Your task to perform on an android device: add a label to a message in the gmail app Image 0: 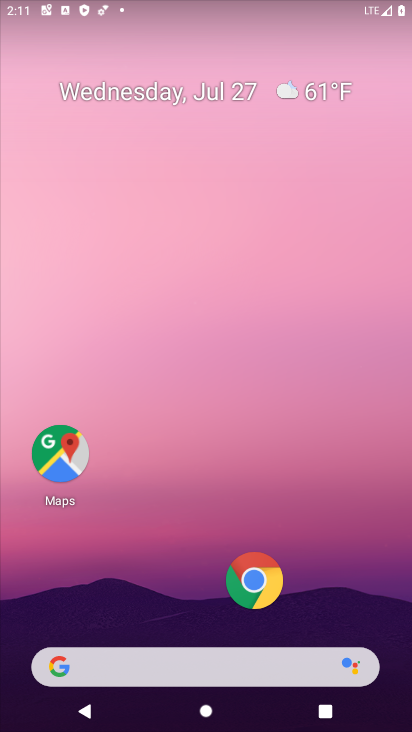
Step 0: drag from (176, 596) to (260, 79)
Your task to perform on an android device: add a label to a message in the gmail app Image 1: 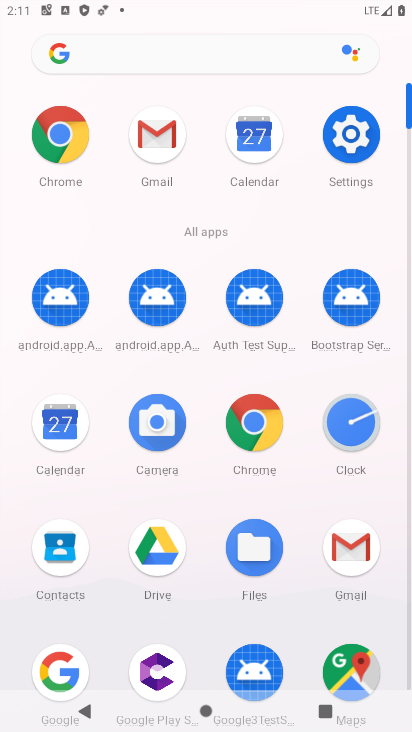
Step 1: click (162, 141)
Your task to perform on an android device: add a label to a message in the gmail app Image 2: 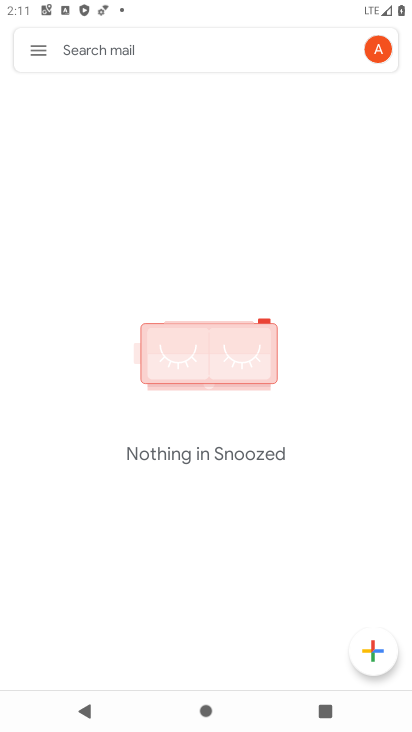
Step 2: click (27, 61)
Your task to perform on an android device: add a label to a message in the gmail app Image 3: 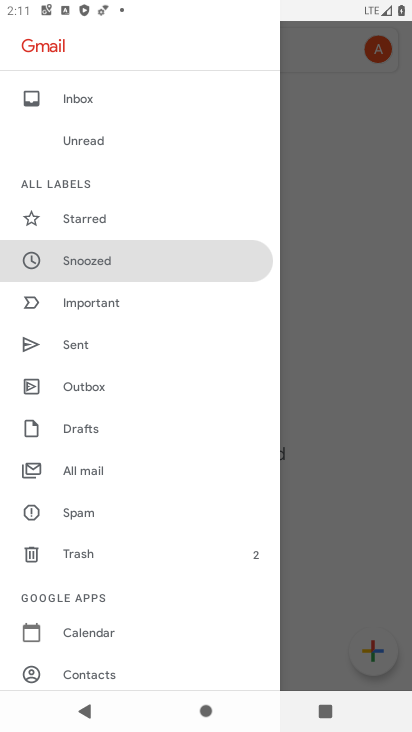
Step 3: click (107, 466)
Your task to perform on an android device: add a label to a message in the gmail app Image 4: 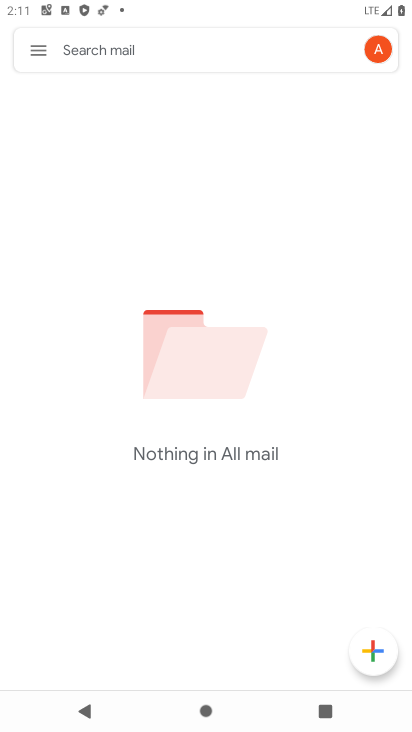
Step 4: task complete